Your task to perform on an android device: Open privacy settings Image 0: 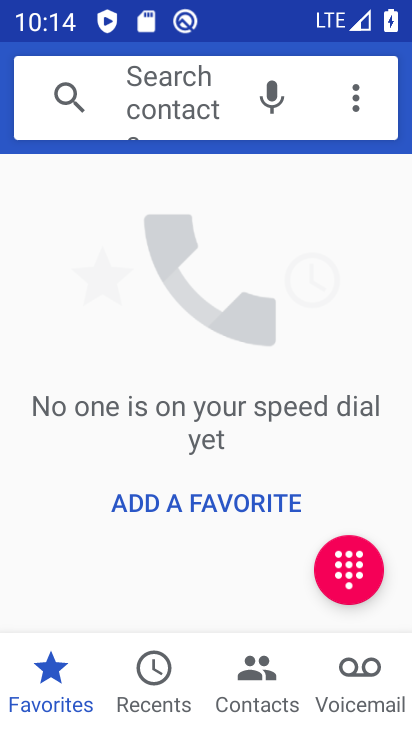
Step 0: press home button
Your task to perform on an android device: Open privacy settings Image 1: 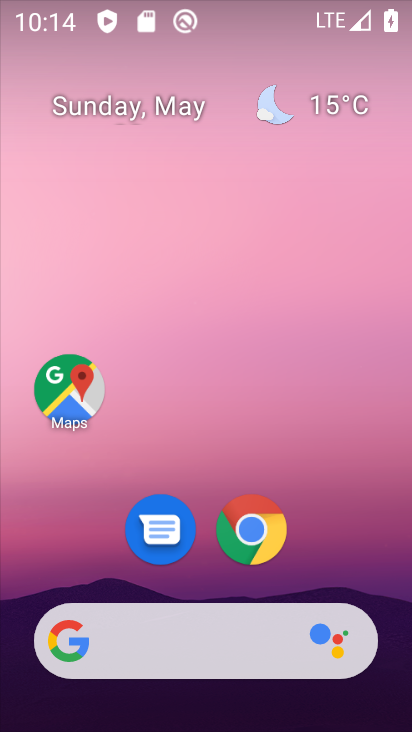
Step 1: drag from (249, 626) to (283, 74)
Your task to perform on an android device: Open privacy settings Image 2: 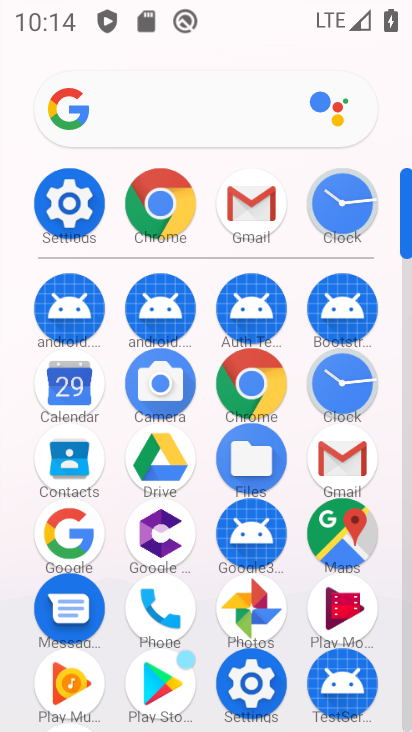
Step 2: click (58, 195)
Your task to perform on an android device: Open privacy settings Image 3: 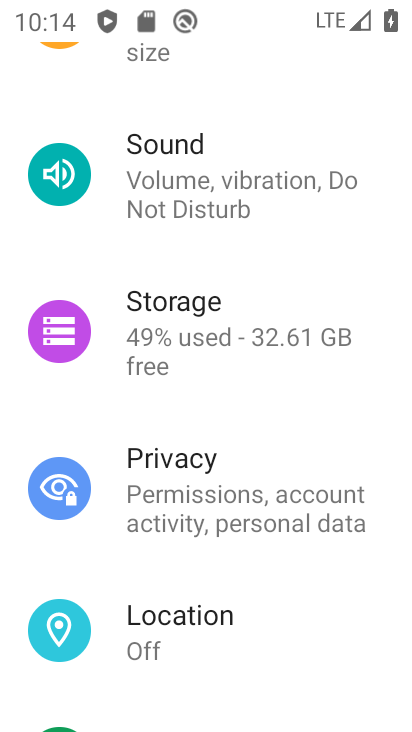
Step 3: click (198, 504)
Your task to perform on an android device: Open privacy settings Image 4: 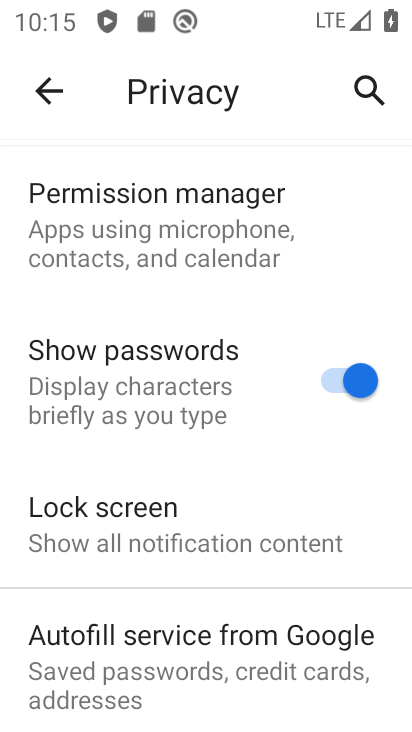
Step 4: task complete